Your task to perform on an android device: Go to ESPN.com Image 0: 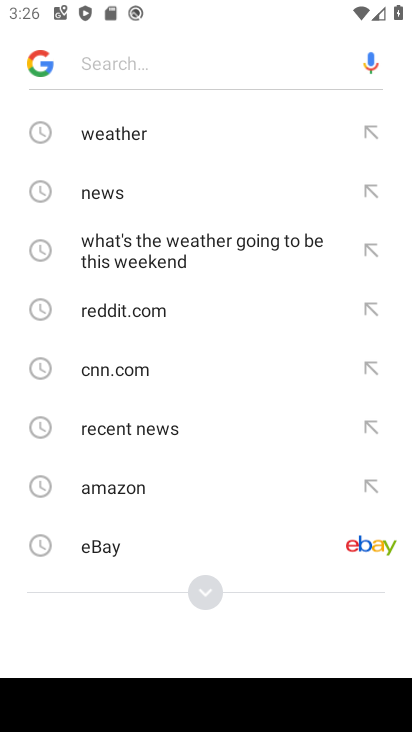
Step 0: press home button
Your task to perform on an android device: Go to ESPN.com Image 1: 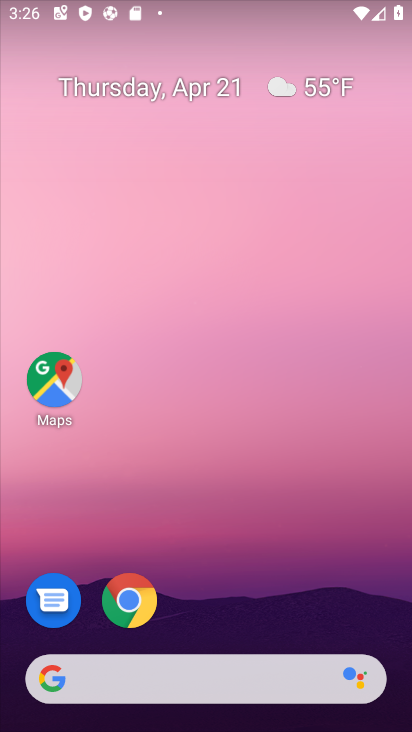
Step 1: click (145, 605)
Your task to perform on an android device: Go to ESPN.com Image 2: 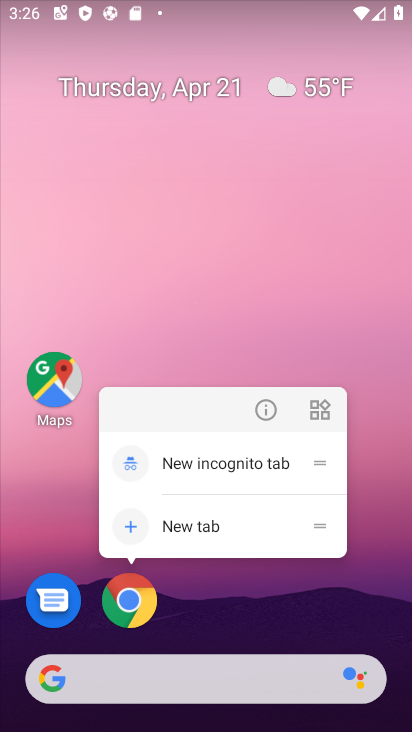
Step 2: click (147, 609)
Your task to perform on an android device: Go to ESPN.com Image 3: 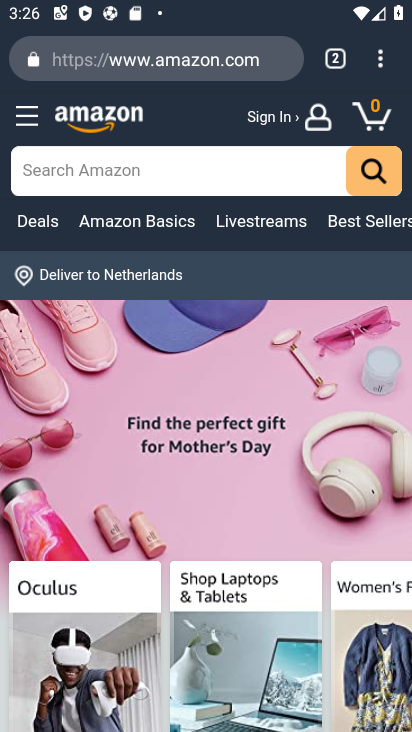
Step 3: click (200, 70)
Your task to perform on an android device: Go to ESPN.com Image 4: 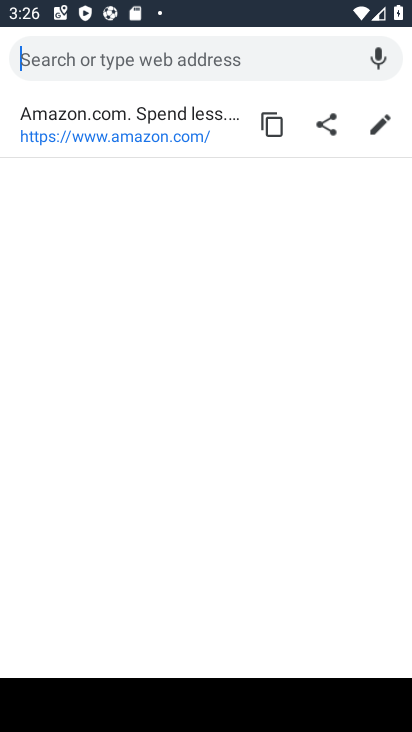
Step 4: type "ESPN.com"
Your task to perform on an android device: Go to ESPN.com Image 5: 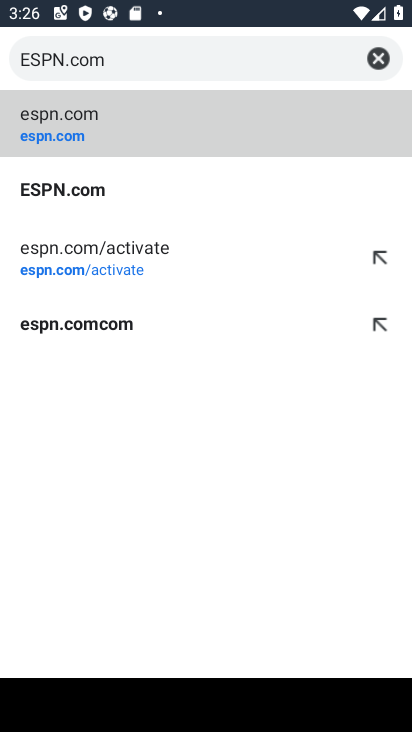
Step 5: click (46, 133)
Your task to perform on an android device: Go to ESPN.com Image 6: 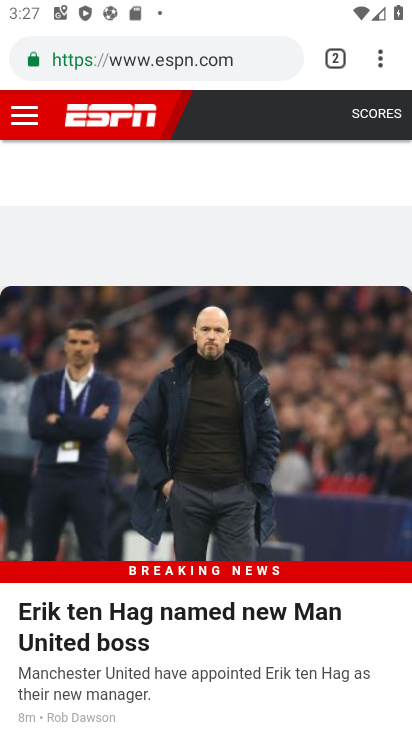
Step 6: task complete